Your task to perform on an android device: uninstall "Adobe Acrobat Reader" Image 0: 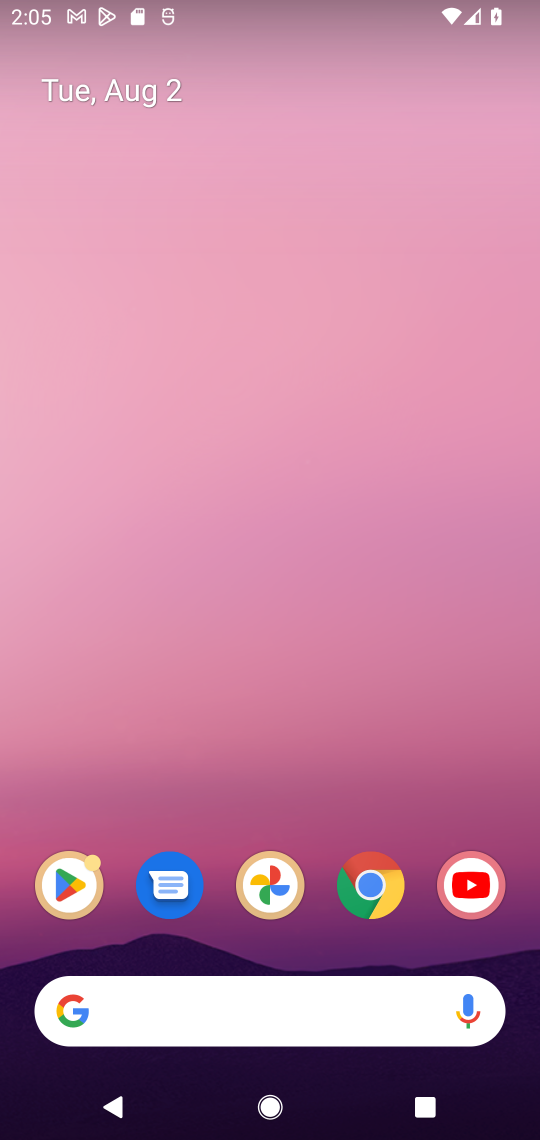
Step 0: click (69, 899)
Your task to perform on an android device: uninstall "Adobe Acrobat Reader" Image 1: 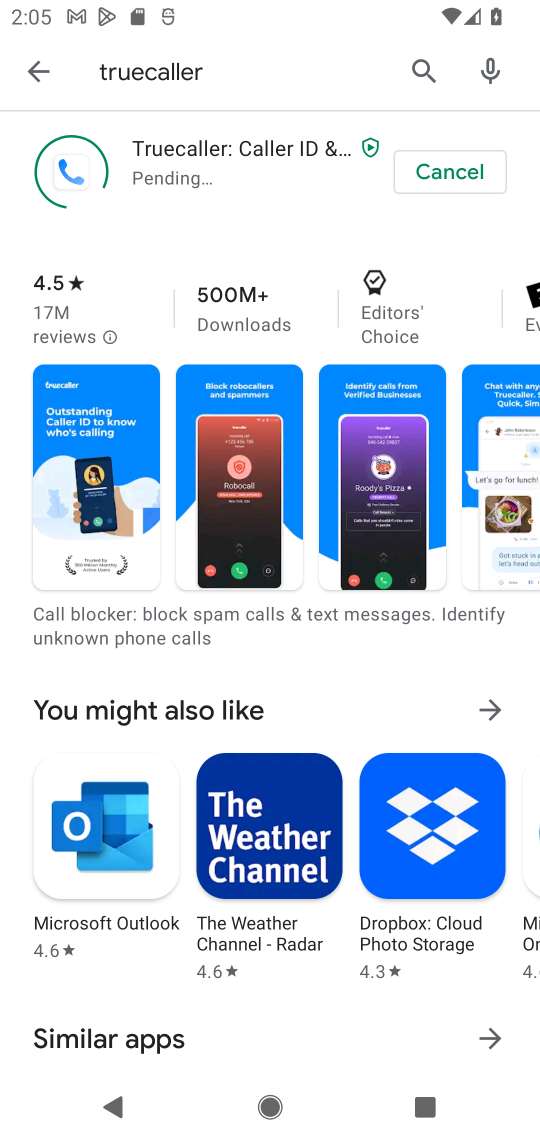
Step 1: click (414, 84)
Your task to perform on an android device: uninstall "Adobe Acrobat Reader" Image 2: 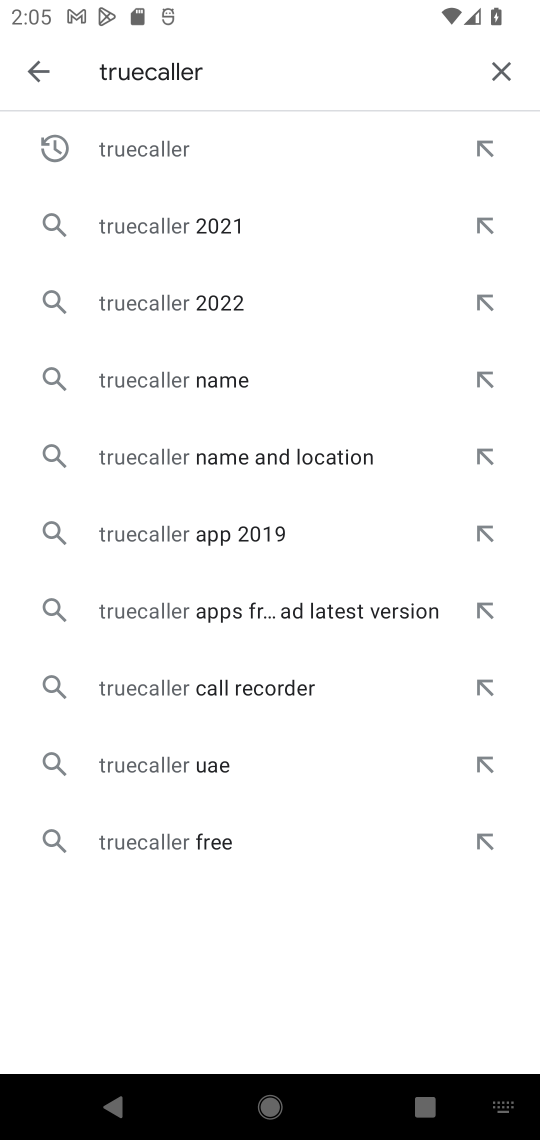
Step 2: click (510, 85)
Your task to perform on an android device: uninstall "Adobe Acrobat Reader" Image 3: 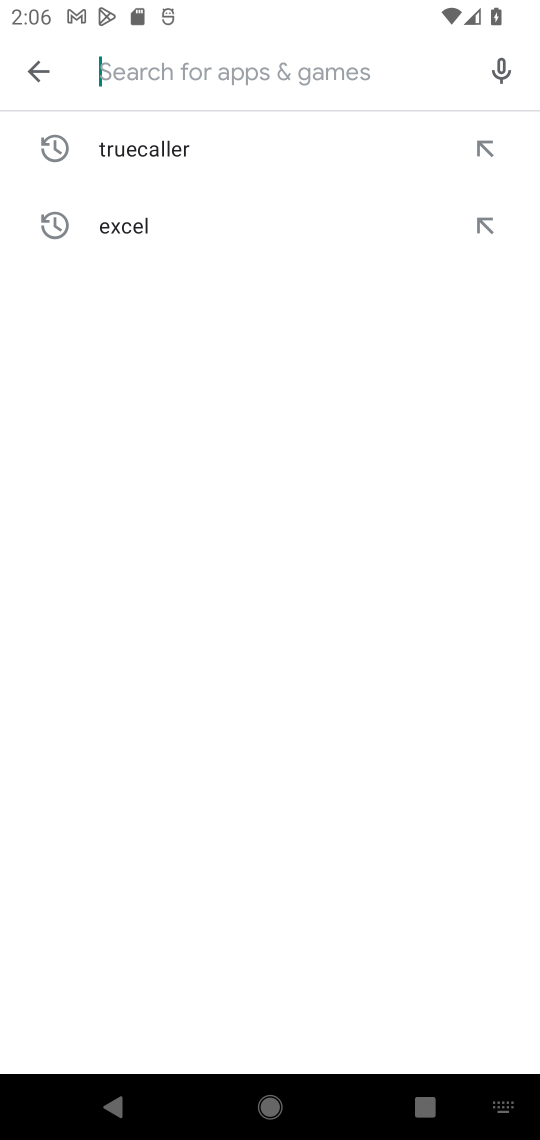
Step 3: type "adobe acrobat"
Your task to perform on an android device: uninstall "Adobe Acrobat Reader" Image 4: 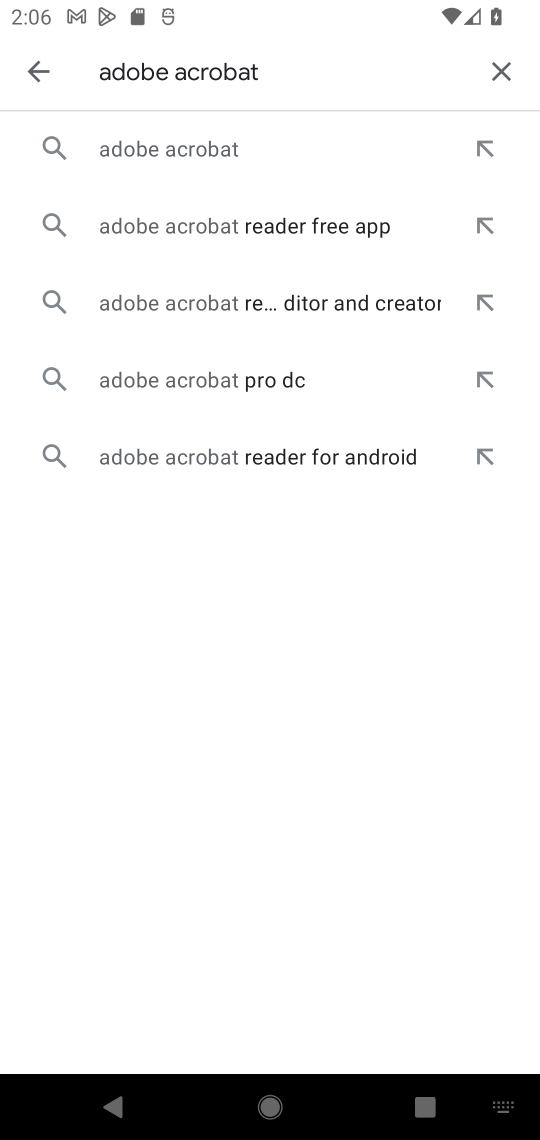
Step 4: click (319, 453)
Your task to perform on an android device: uninstall "Adobe Acrobat Reader" Image 5: 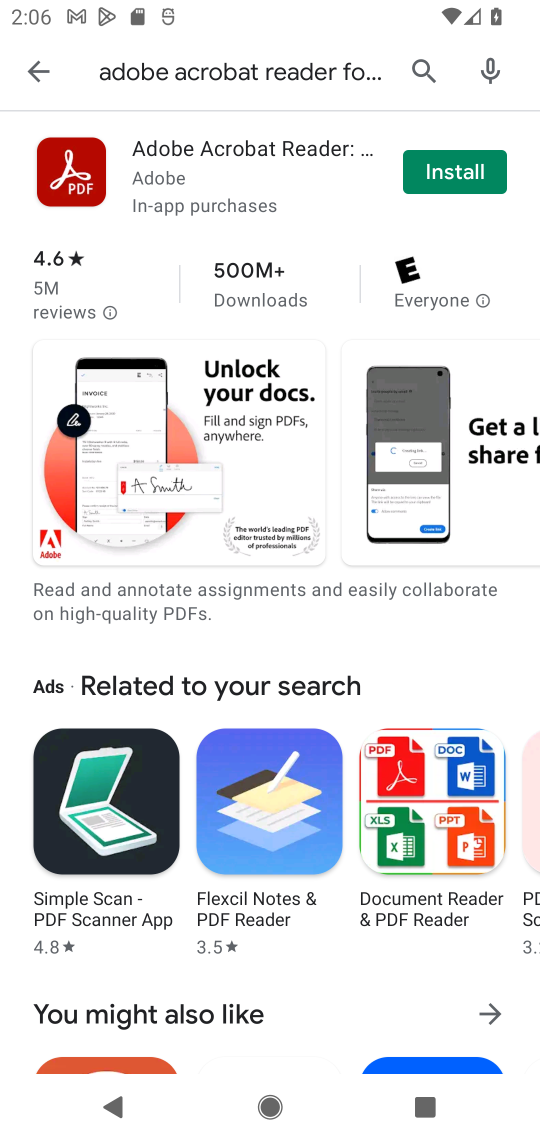
Step 5: click (434, 169)
Your task to perform on an android device: uninstall "Adobe Acrobat Reader" Image 6: 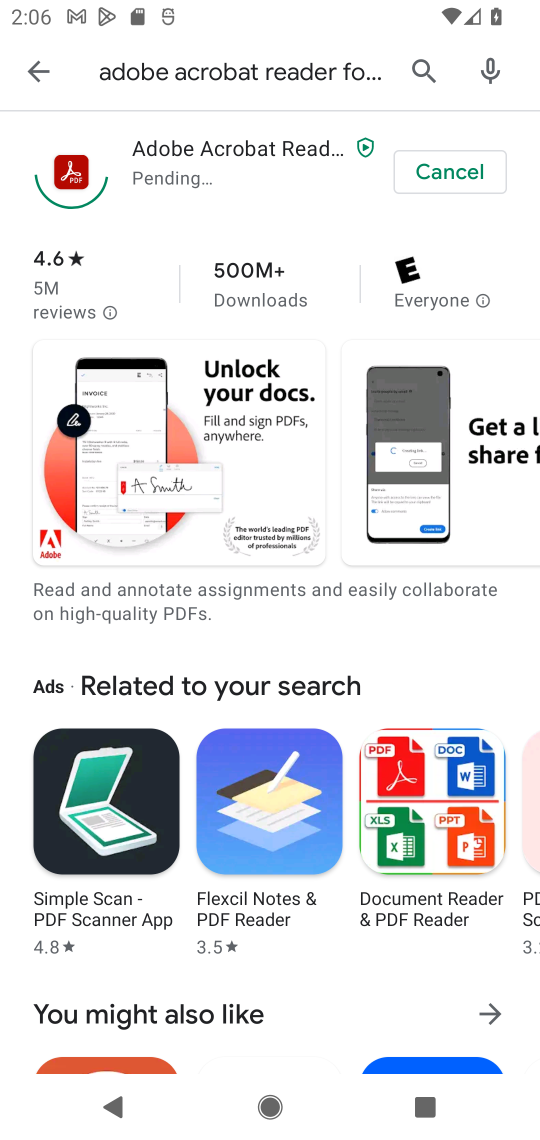
Step 6: task complete